Your task to perform on an android device: What is the news today? Image 0: 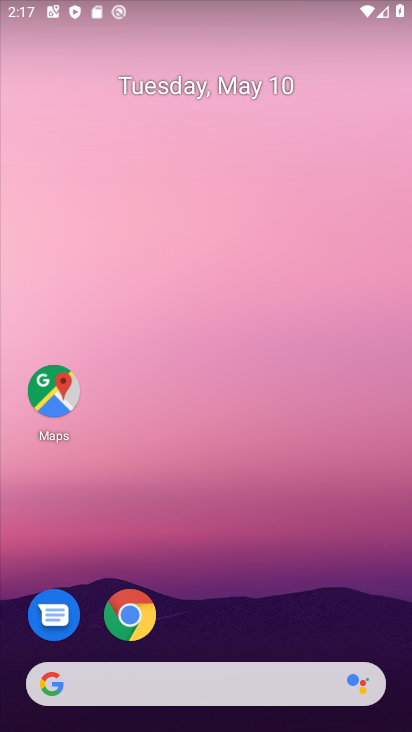
Step 0: click (122, 615)
Your task to perform on an android device: What is the news today? Image 1: 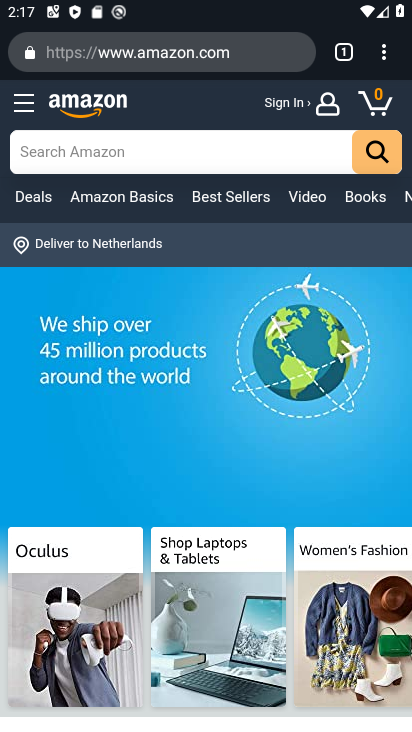
Step 1: click (244, 56)
Your task to perform on an android device: What is the news today? Image 2: 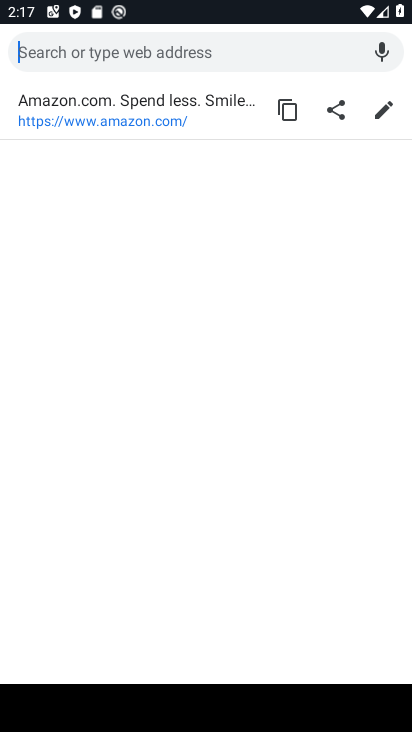
Step 2: type "What is the news today?"
Your task to perform on an android device: What is the news today? Image 3: 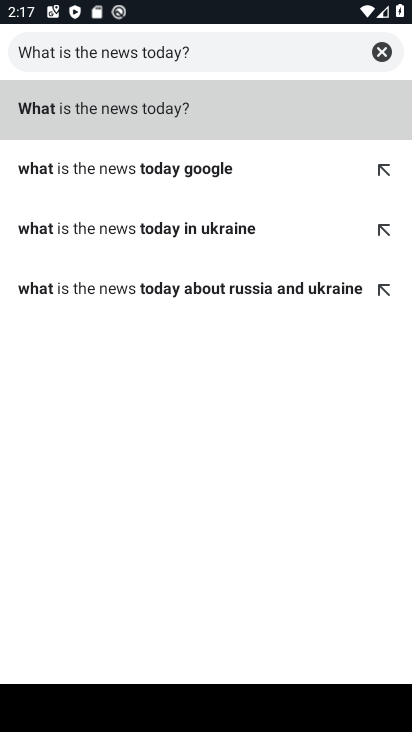
Step 3: click (76, 110)
Your task to perform on an android device: What is the news today? Image 4: 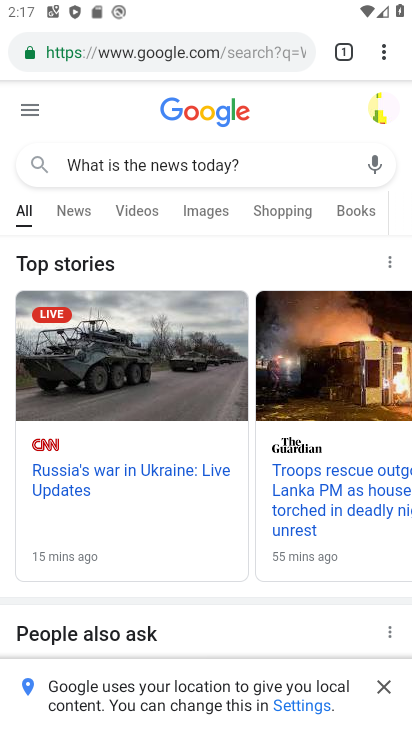
Step 4: click (77, 221)
Your task to perform on an android device: What is the news today? Image 5: 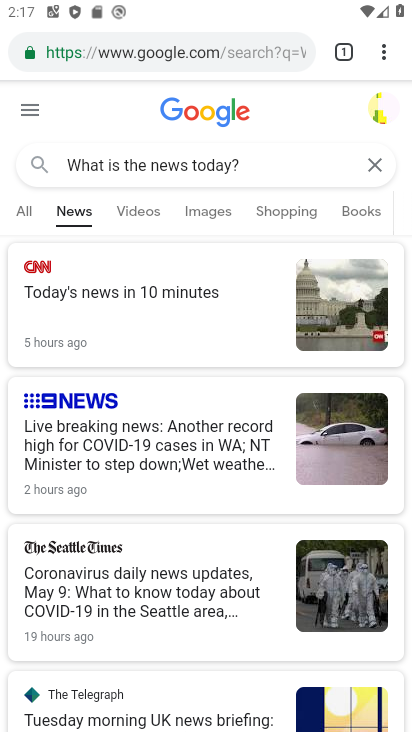
Step 5: task complete